Your task to perform on an android device: Clear the cart on amazon.com. Image 0: 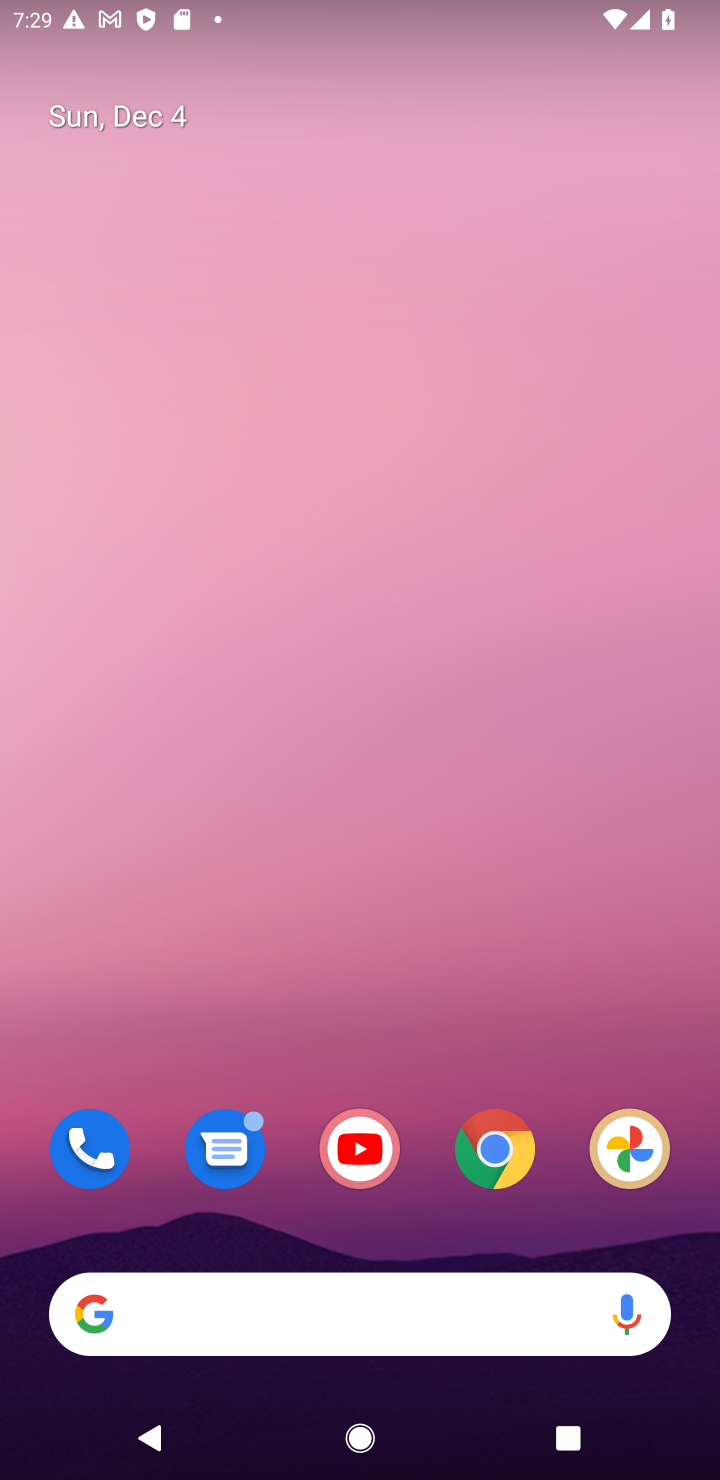
Step 0: drag from (348, 911) to (400, 409)
Your task to perform on an android device: Clear the cart on amazon.com. Image 1: 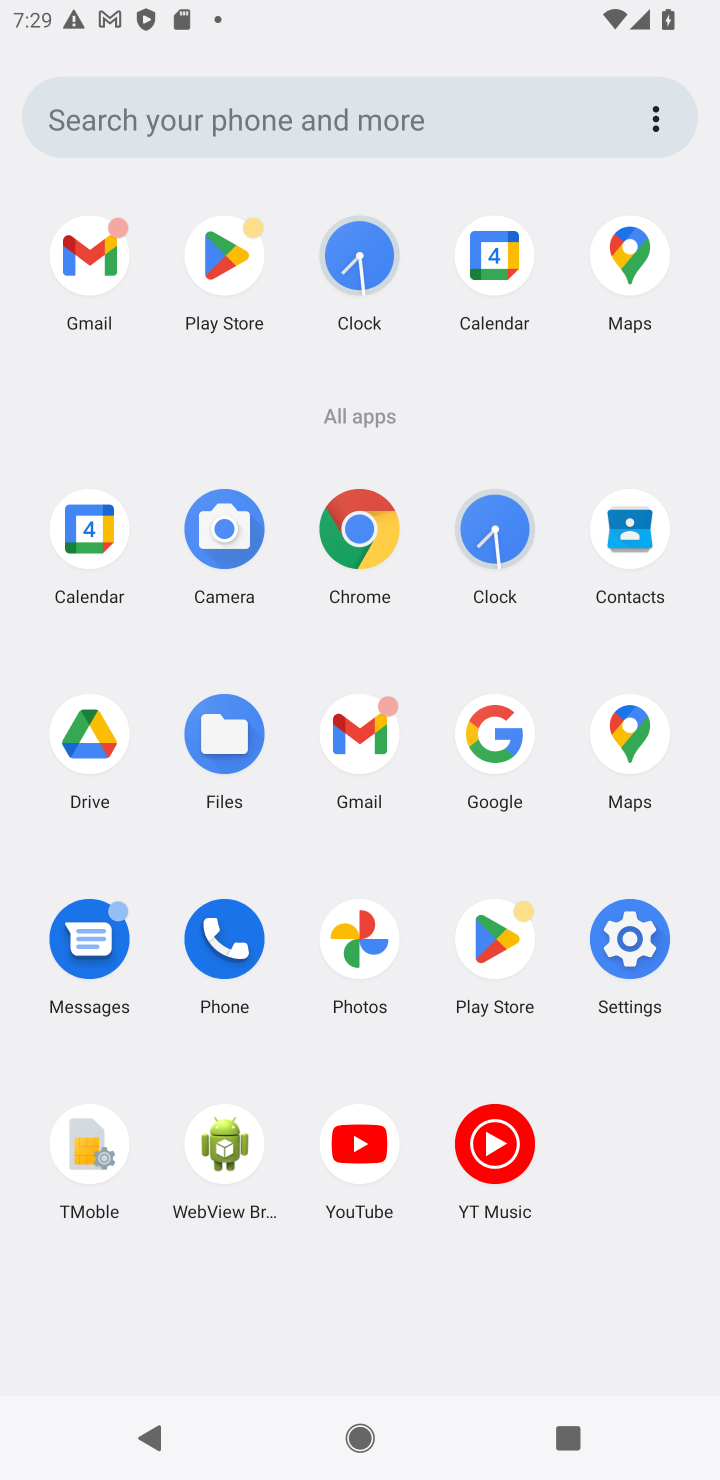
Step 1: click (482, 726)
Your task to perform on an android device: Clear the cart on amazon.com. Image 2: 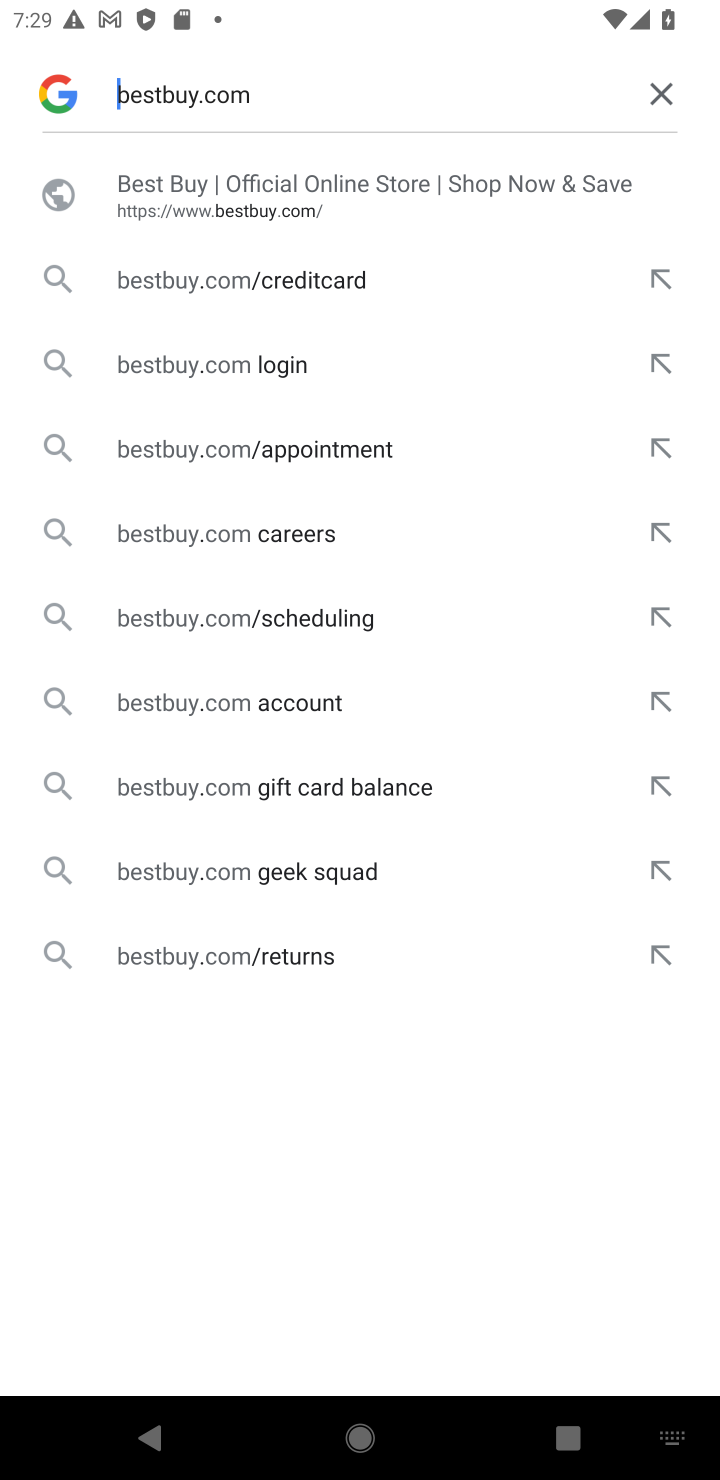
Step 2: click (675, 100)
Your task to perform on an android device: Clear the cart on amazon.com. Image 3: 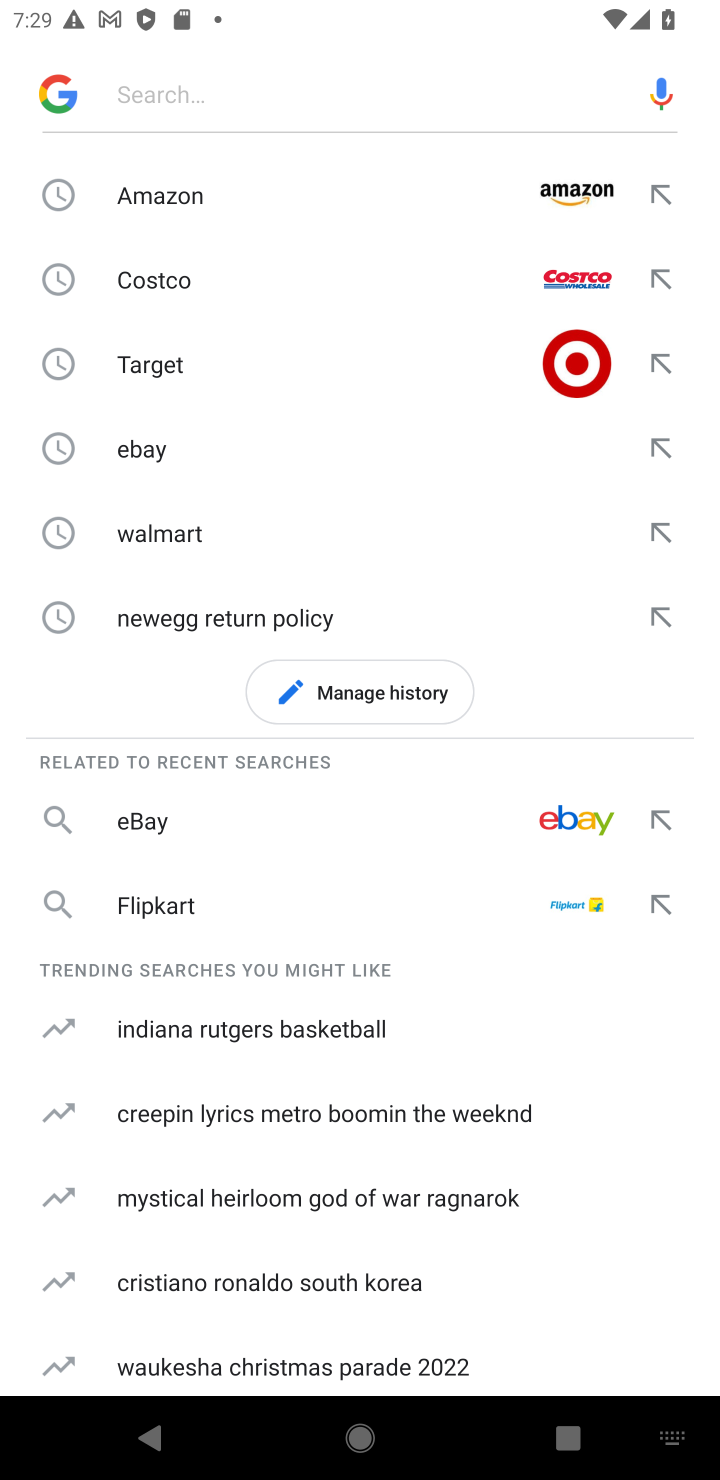
Step 3: click (183, 214)
Your task to perform on an android device: Clear the cart on amazon.com. Image 4: 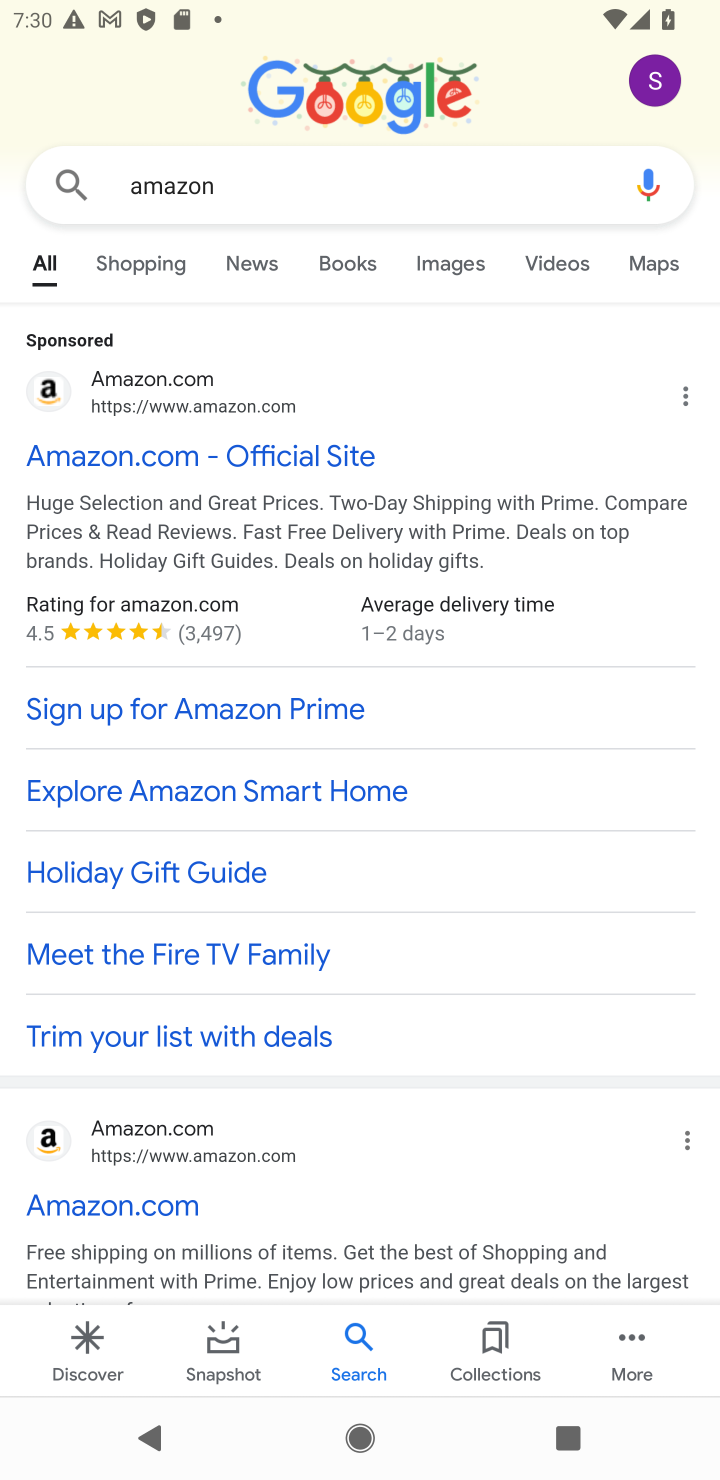
Step 4: click (206, 469)
Your task to perform on an android device: Clear the cart on amazon.com. Image 5: 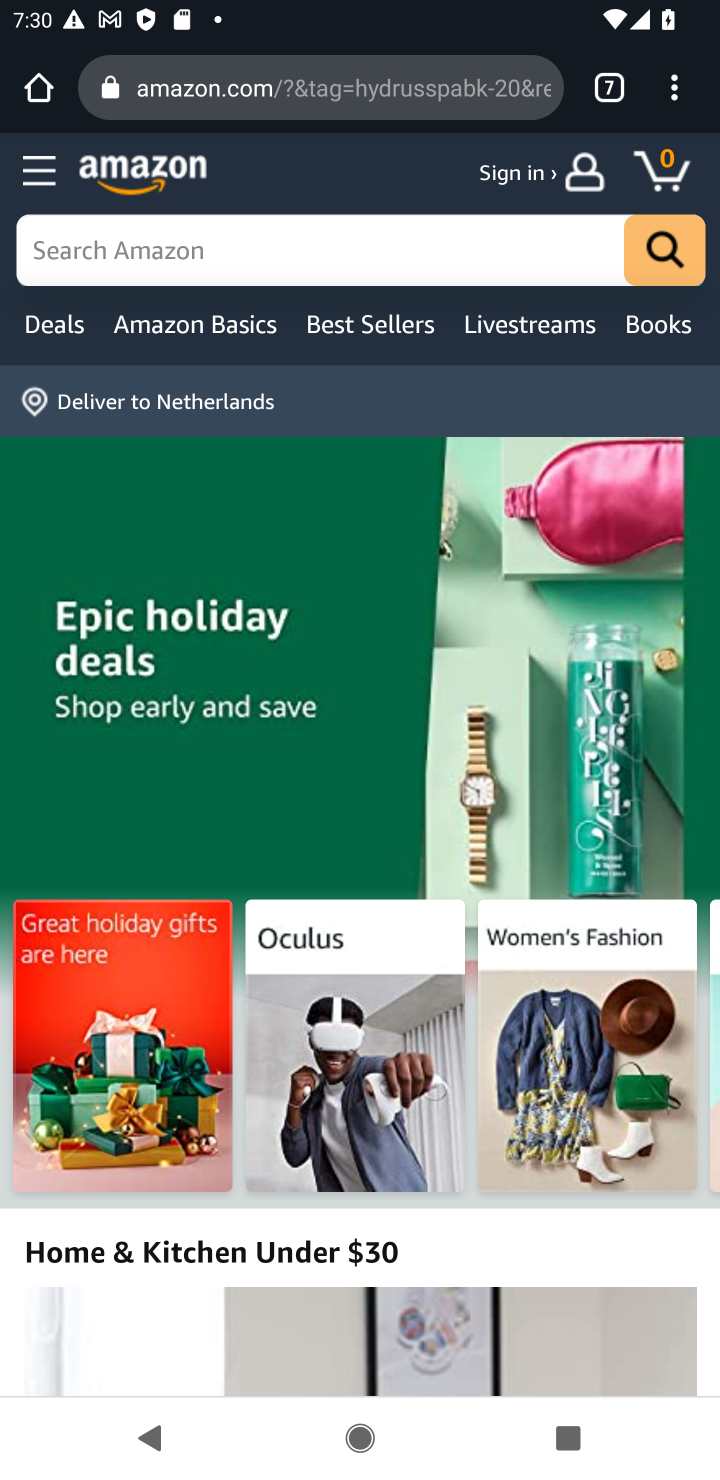
Step 5: click (676, 167)
Your task to perform on an android device: Clear the cart on amazon.com. Image 6: 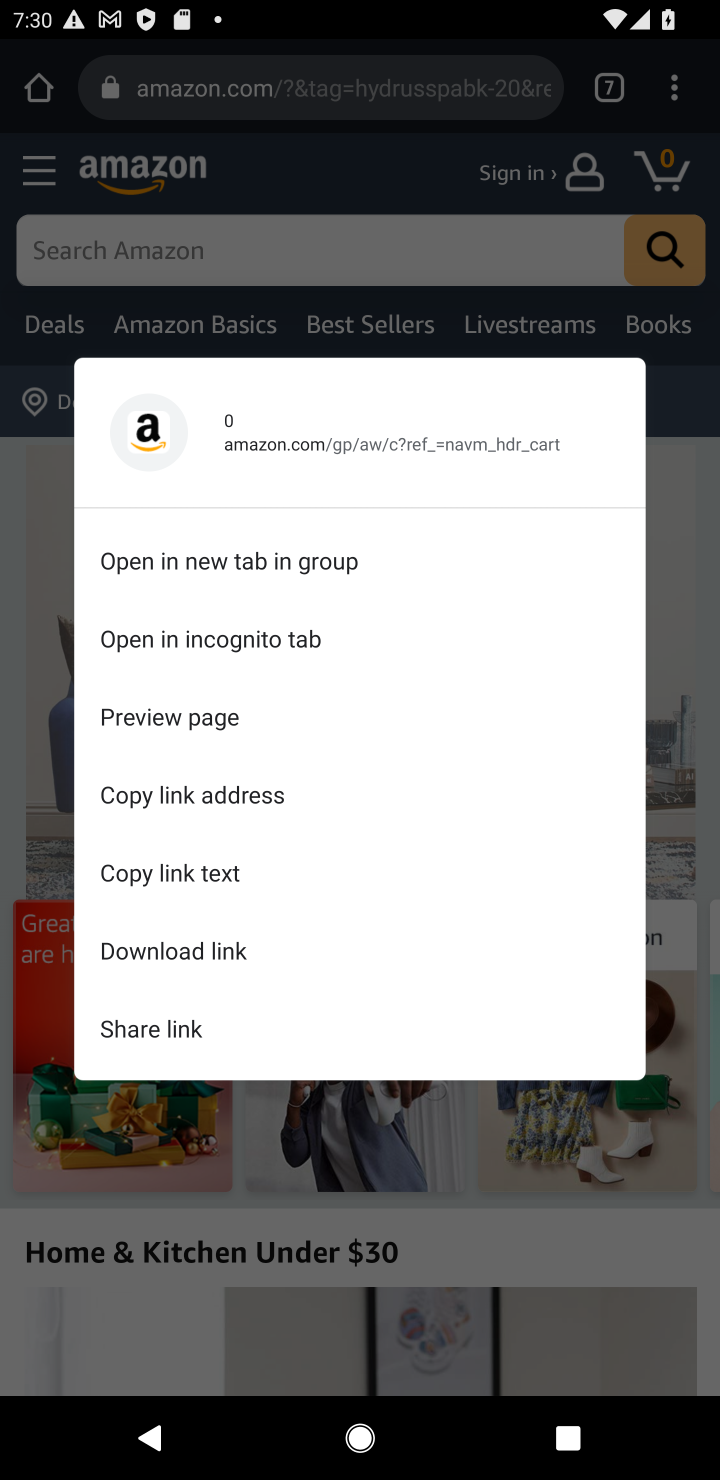
Step 6: click (466, 1106)
Your task to perform on an android device: Clear the cart on amazon.com. Image 7: 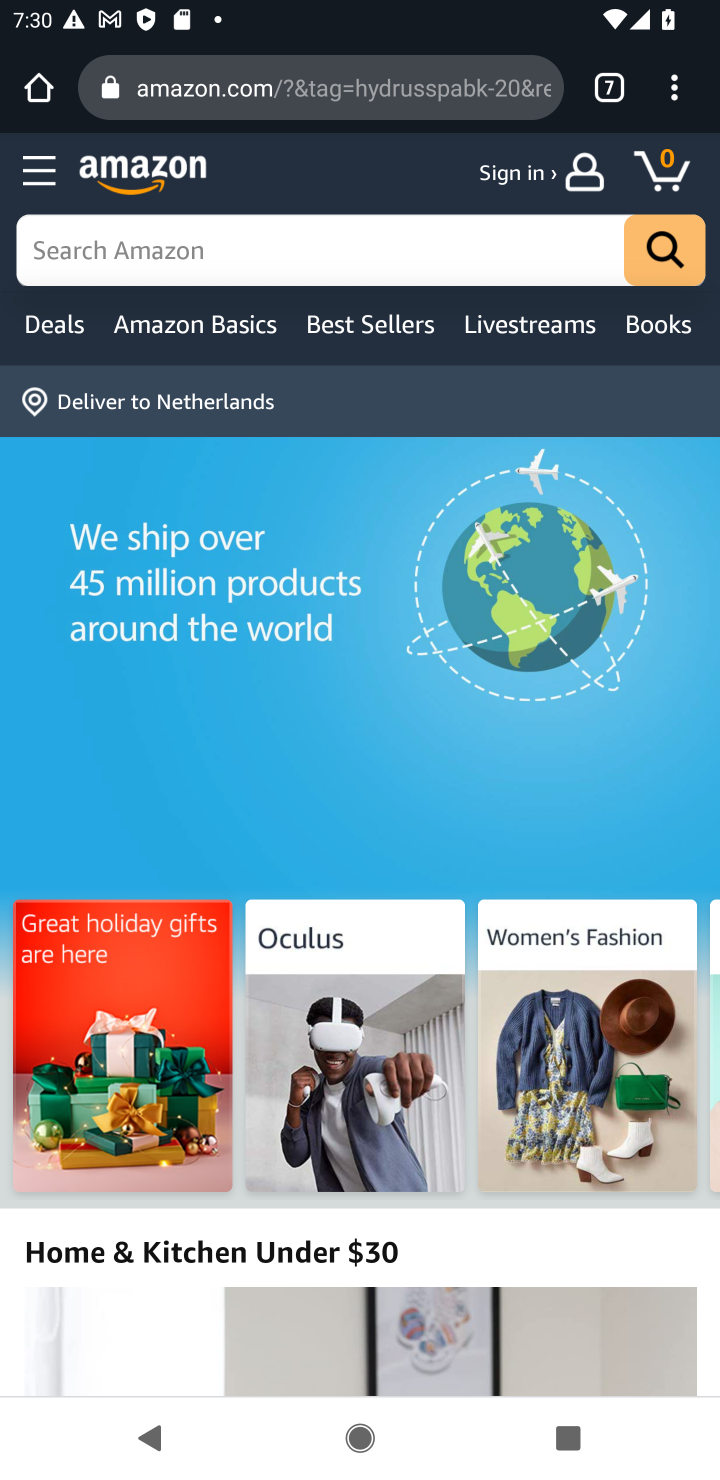
Step 7: click (644, 165)
Your task to perform on an android device: Clear the cart on amazon.com. Image 8: 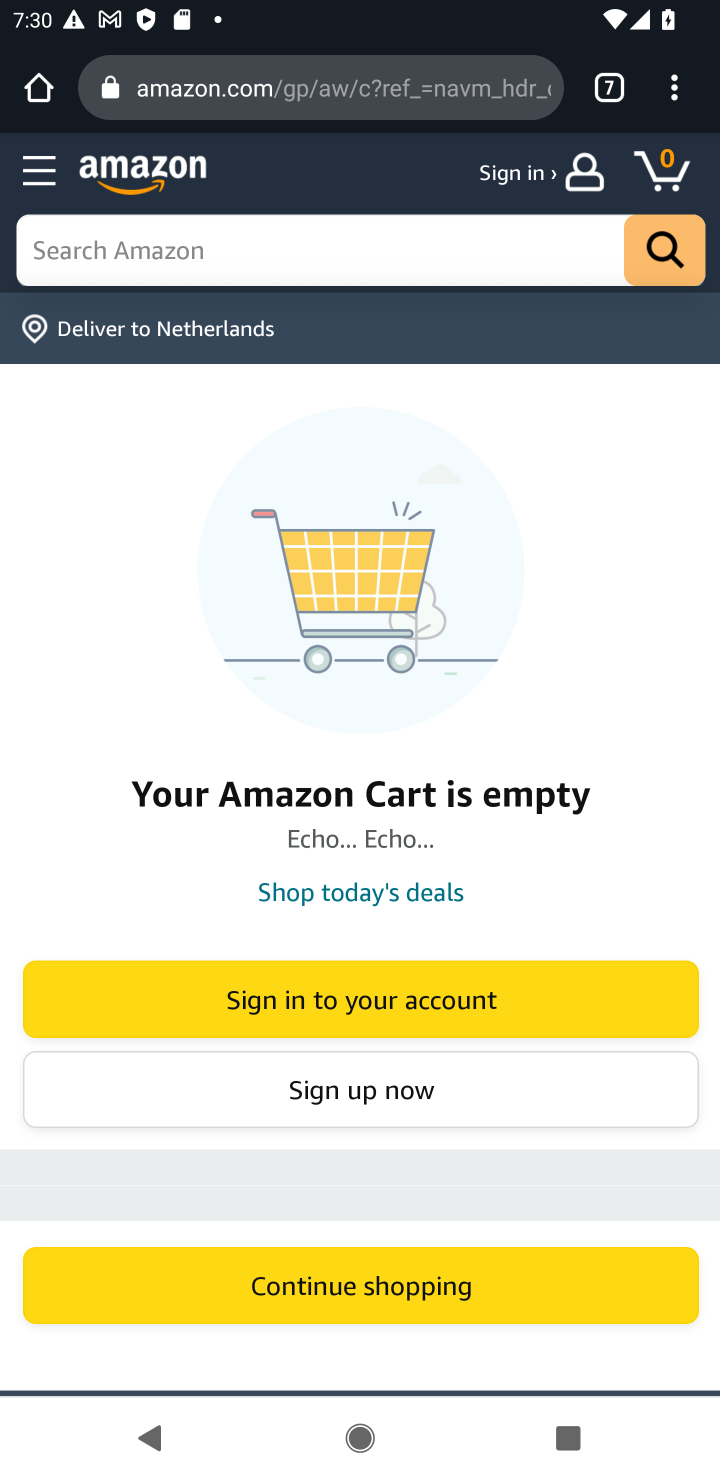
Step 8: task complete